Your task to perform on an android device: allow notifications from all sites in the chrome app Image 0: 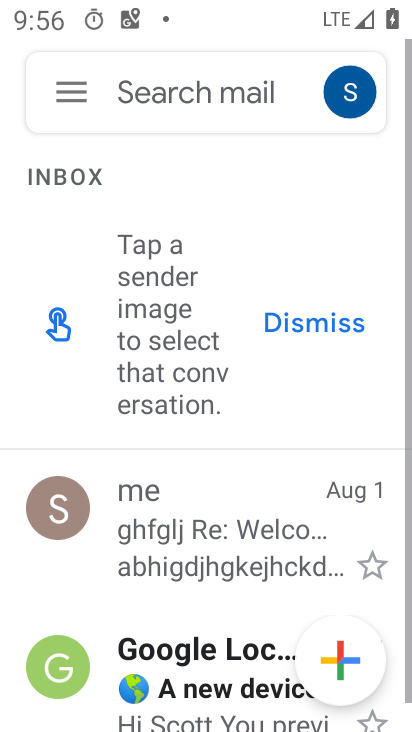
Step 0: press home button
Your task to perform on an android device: allow notifications from all sites in the chrome app Image 1: 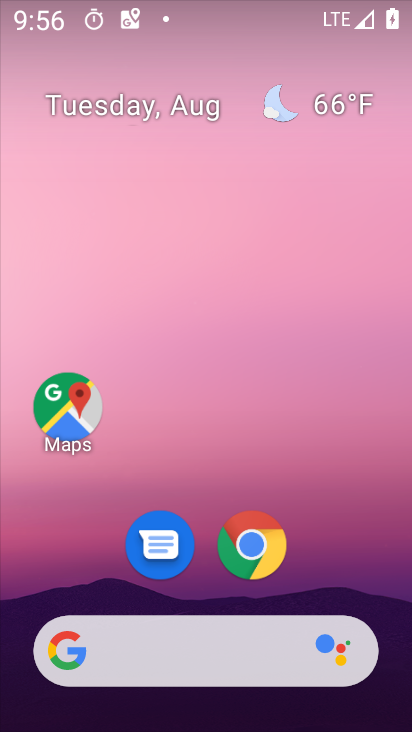
Step 1: drag from (179, 535) to (223, 252)
Your task to perform on an android device: allow notifications from all sites in the chrome app Image 2: 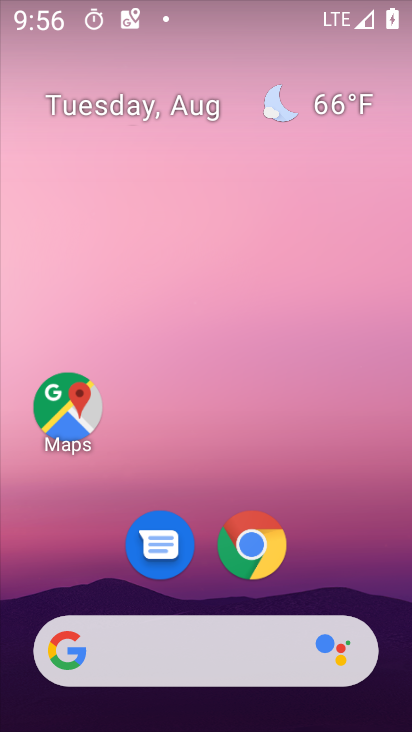
Step 2: drag from (231, 634) to (304, 6)
Your task to perform on an android device: allow notifications from all sites in the chrome app Image 3: 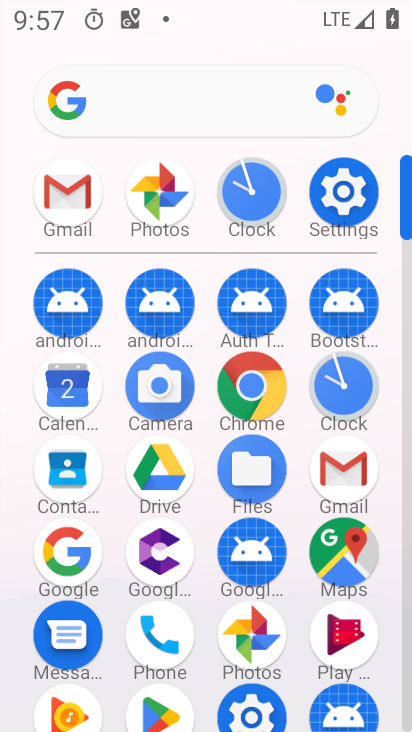
Step 3: click (239, 400)
Your task to perform on an android device: allow notifications from all sites in the chrome app Image 4: 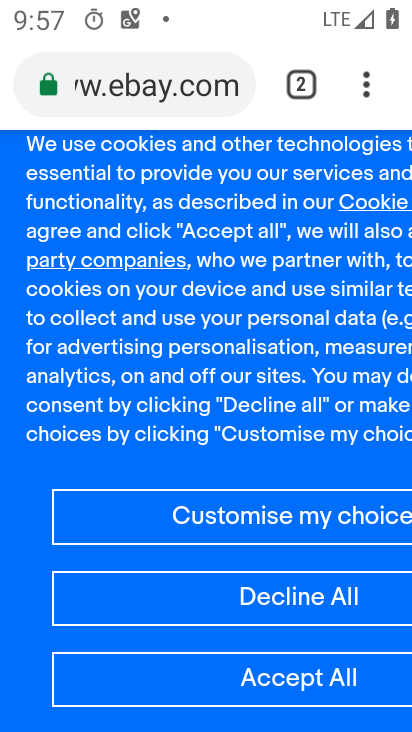
Step 4: click (363, 83)
Your task to perform on an android device: allow notifications from all sites in the chrome app Image 5: 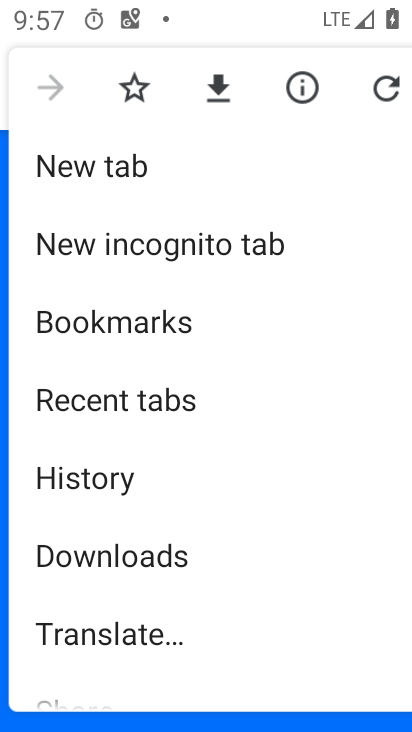
Step 5: drag from (144, 553) to (225, 40)
Your task to perform on an android device: allow notifications from all sites in the chrome app Image 6: 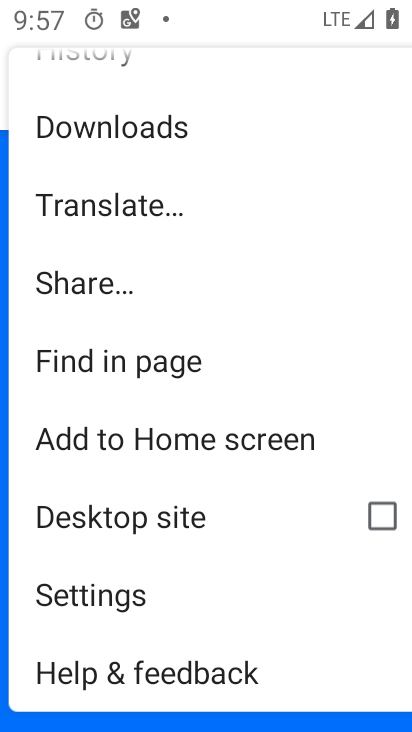
Step 6: click (132, 590)
Your task to perform on an android device: allow notifications from all sites in the chrome app Image 7: 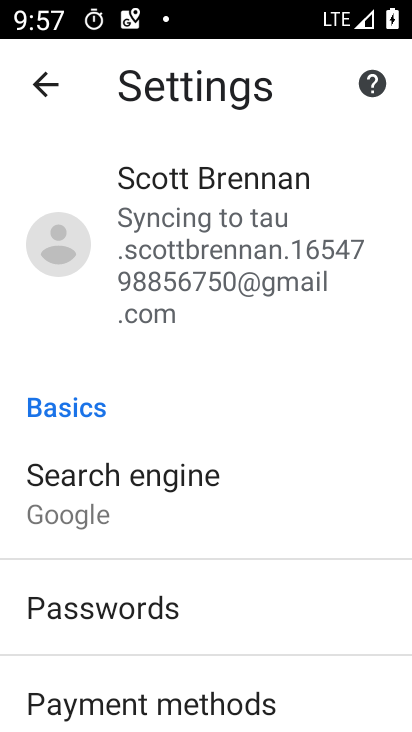
Step 7: drag from (126, 602) to (158, 269)
Your task to perform on an android device: allow notifications from all sites in the chrome app Image 8: 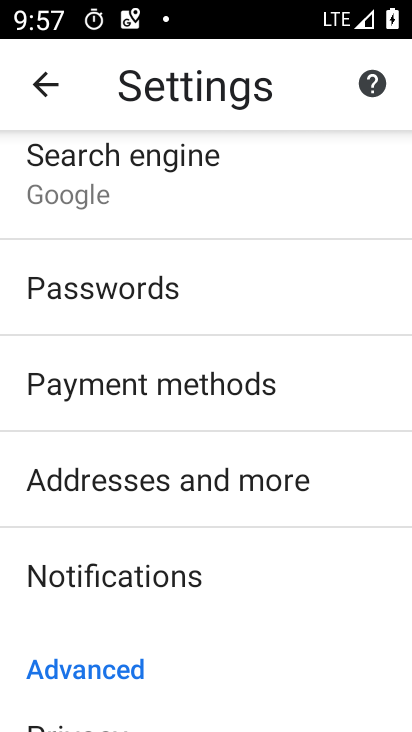
Step 8: click (145, 572)
Your task to perform on an android device: allow notifications from all sites in the chrome app Image 9: 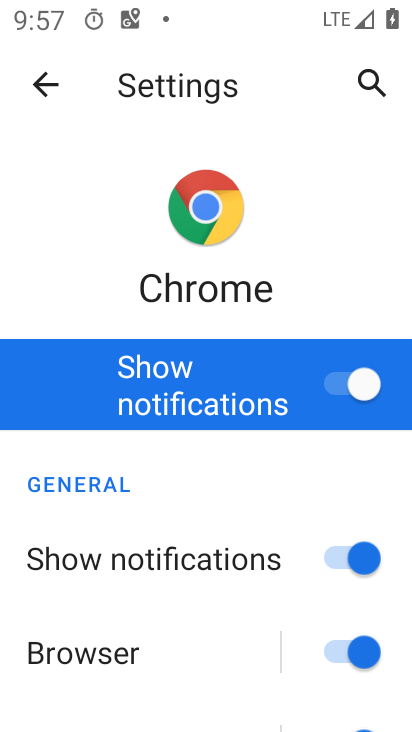
Step 9: task complete